Your task to perform on an android device: turn on location history Image 0: 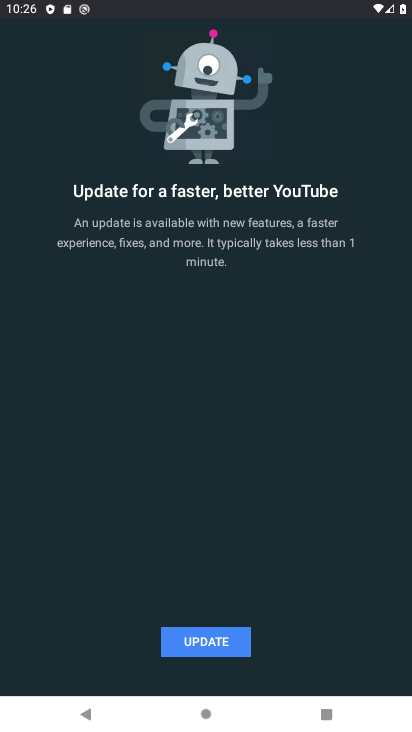
Step 0: press home button
Your task to perform on an android device: turn on location history Image 1: 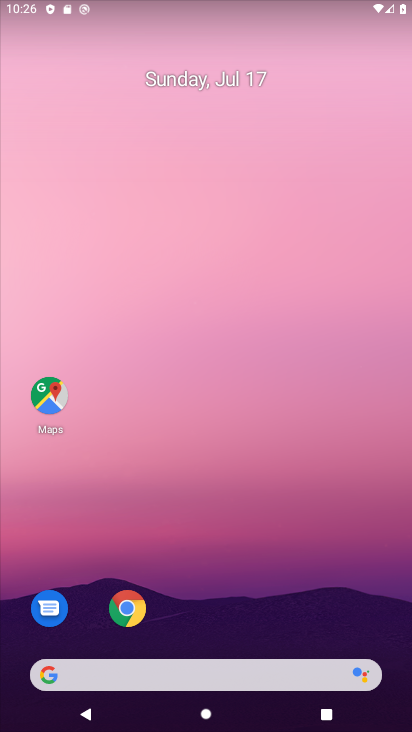
Step 1: task complete